Your task to perform on an android device: add a label to a message in the gmail app Image 0: 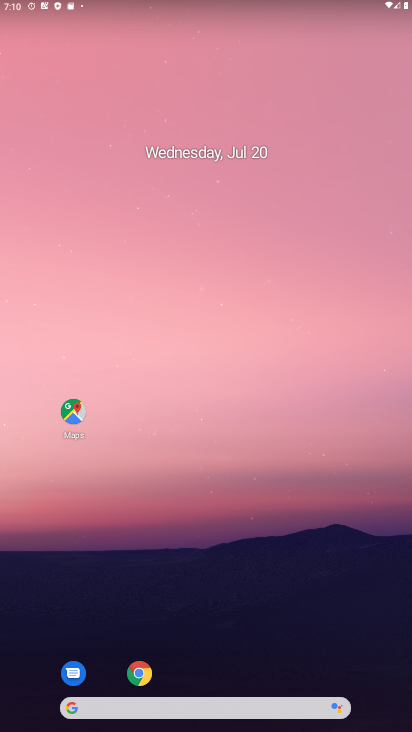
Step 0: drag from (380, 671) to (230, 105)
Your task to perform on an android device: add a label to a message in the gmail app Image 1: 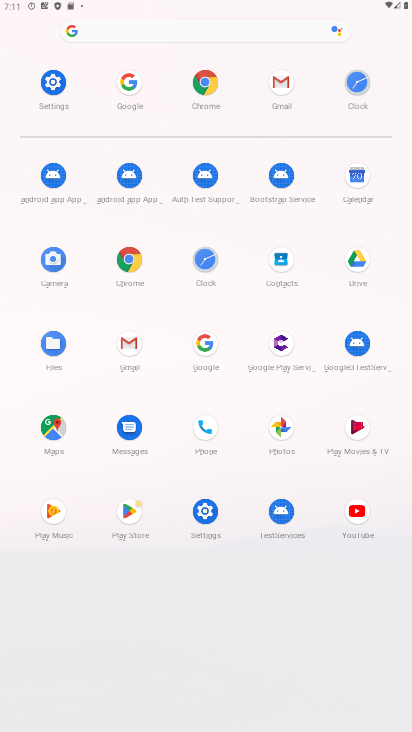
Step 1: click (129, 344)
Your task to perform on an android device: add a label to a message in the gmail app Image 2: 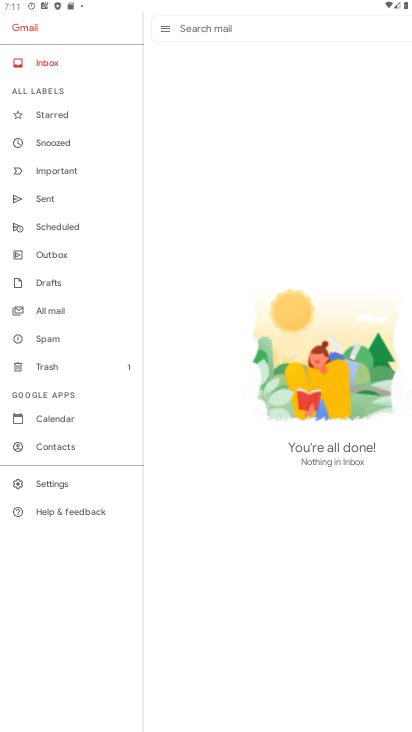
Step 2: task complete